Your task to perform on an android device: Go to Maps Image 0: 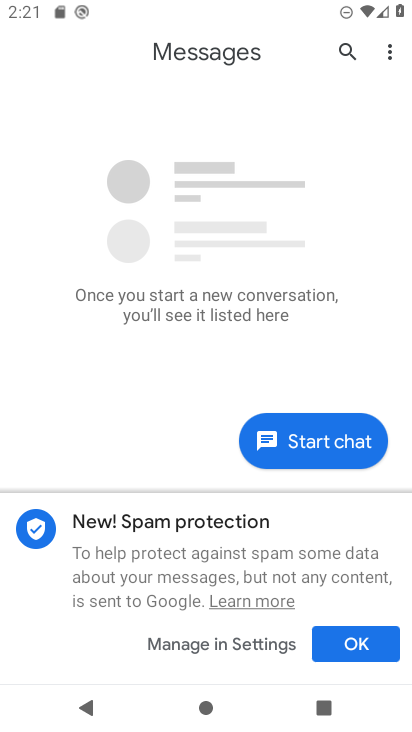
Step 0: press home button
Your task to perform on an android device: Go to Maps Image 1: 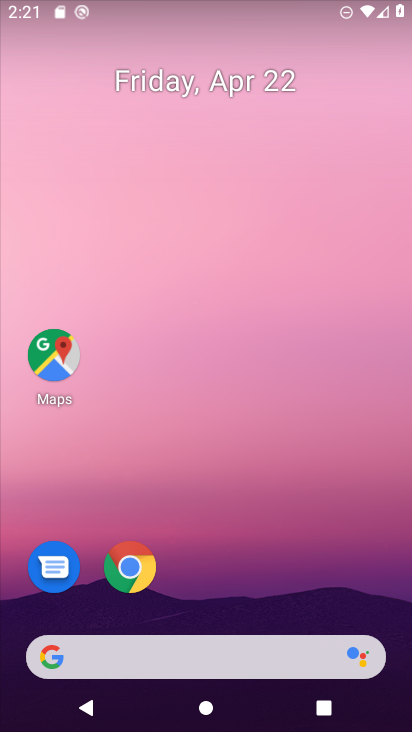
Step 1: click (62, 360)
Your task to perform on an android device: Go to Maps Image 2: 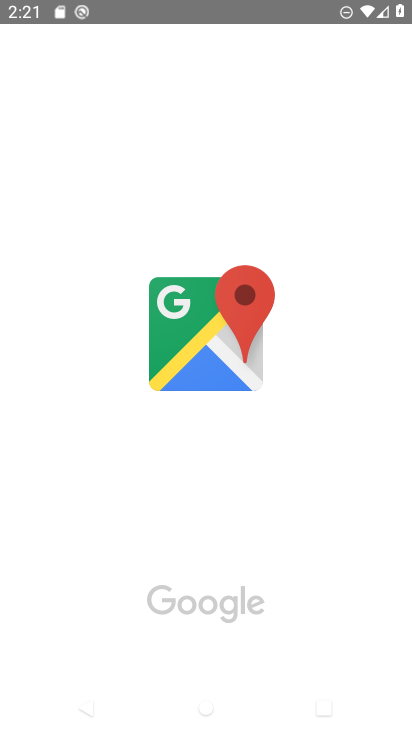
Step 2: task complete